Your task to perform on an android device: read, delete, or share a saved page in the chrome app Image 0: 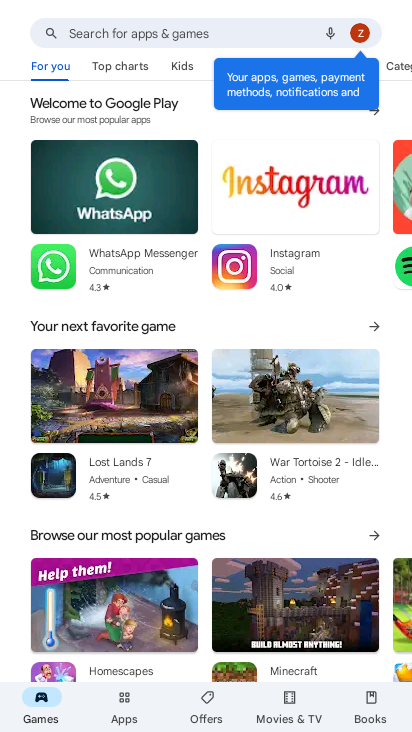
Step 0: press home button
Your task to perform on an android device: read, delete, or share a saved page in the chrome app Image 1: 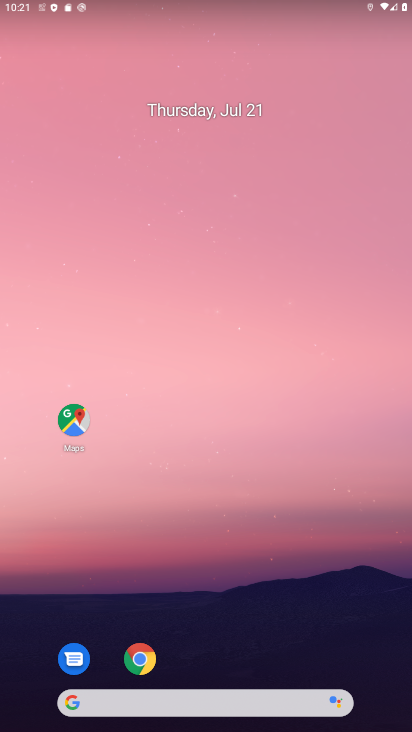
Step 1: drag from (211, 672) to (239, 32)
Your task to perform on an android device: read, delete, or share a saved page in the chrome app Image 2: 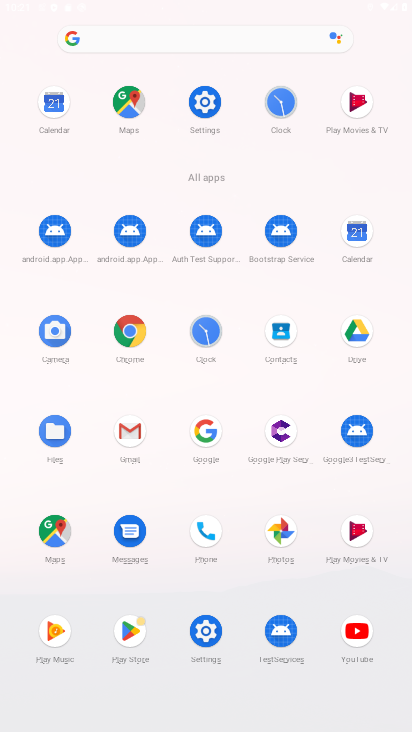
Step 2: click (135, 349)
Your task to perform on an android device: read, delete, or share a saved page in the chrome app Image 3: 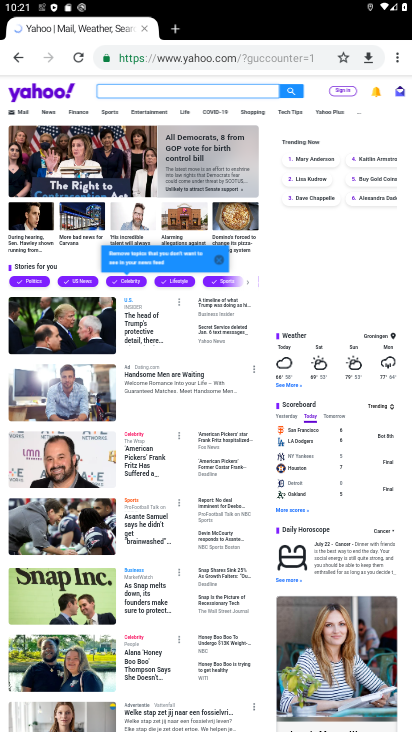
Step 3: click (392, 61)
Your task to perform on an android device: read, delete, or share a saved page in the chrome app Image 4: 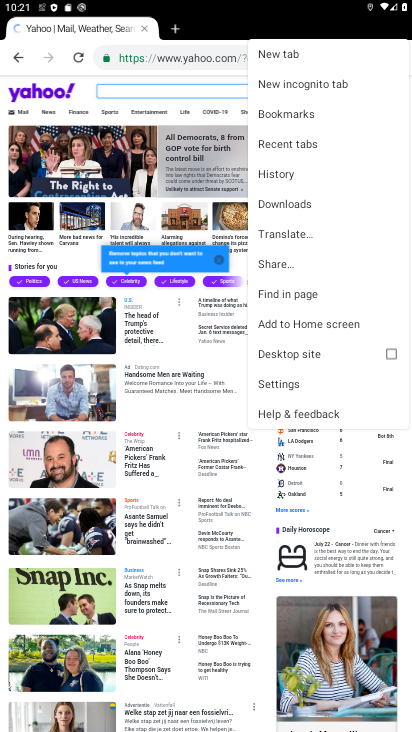
Step 4: click (301, 207)
Your task to perform on an android device: read, delete, or share a saved page in the chrome app Image 5: 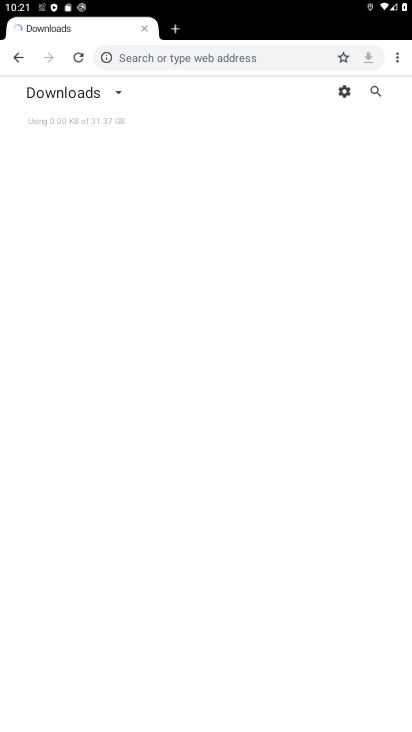
Step 5: task complete